Your task to perform on an android device: open a new tab in the chrome app Image 0: 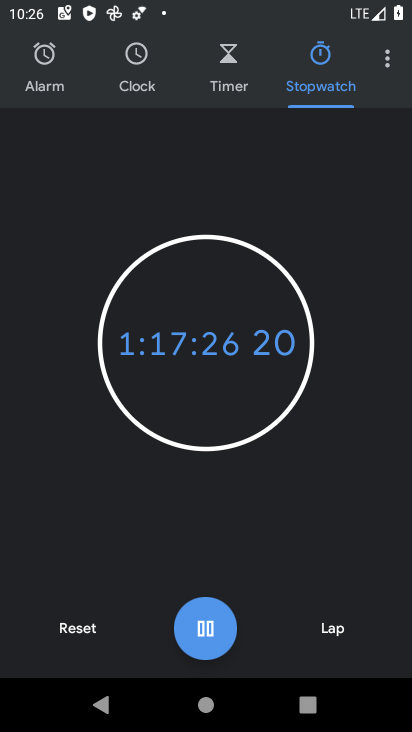
Step 0: press home button
Your task to perform on an android device: open a new tab in the chrome app Image 1: 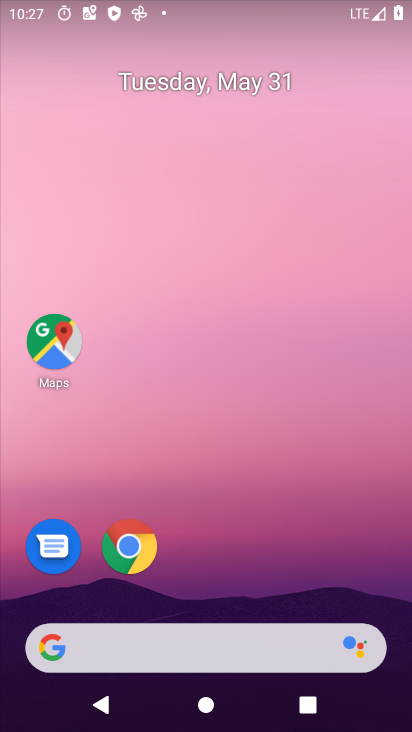
Step 1: click (113, 542)
Your task to perform on an android device: open a new tab in the chrome app Image 2: 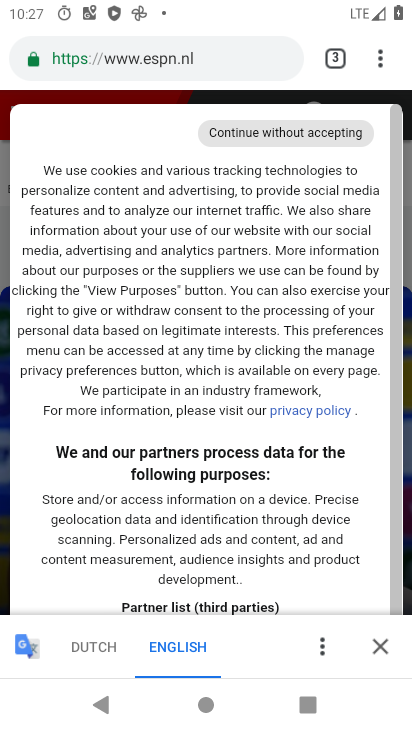
Step 2: click (381, 66)
Your task to perform on an android device: open a new tab in the chrome app Image 3: 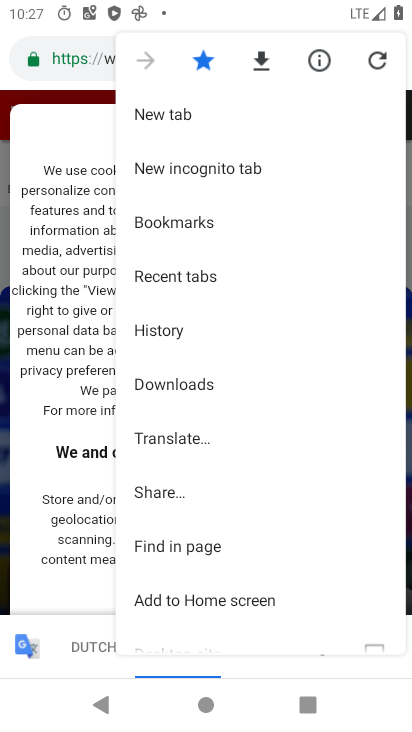
Step 3: click (253, 112)
Your task to perform on an android device: open a new tab in the chrome app Image 4: 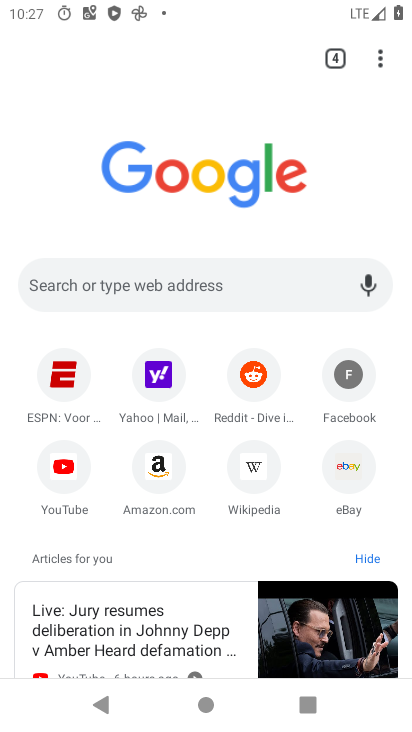
Step 4: task complete